Your task to perform on an android device: Show me the alarms in the clock app Image 0: 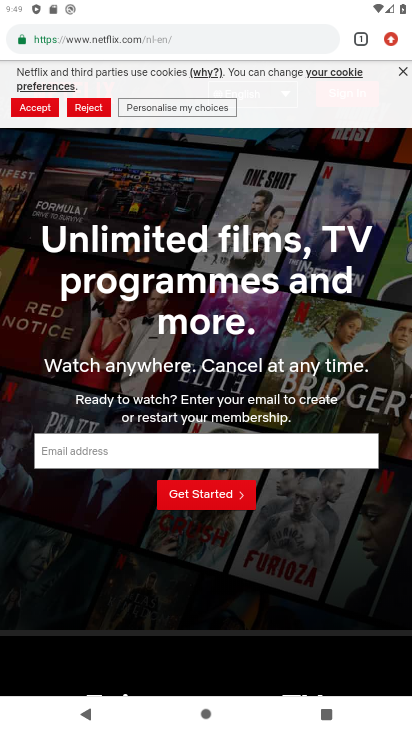
Step 0: press home button
Your task to perform on an android device: Show me the alarms in the clock app Image 1: 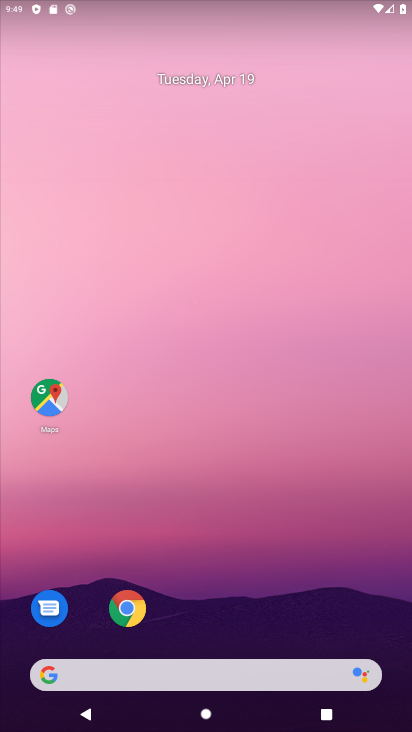
Step 1: click (322, 151)
Your task to perform on an android device: Show me the alarms in the clock app Image 2: 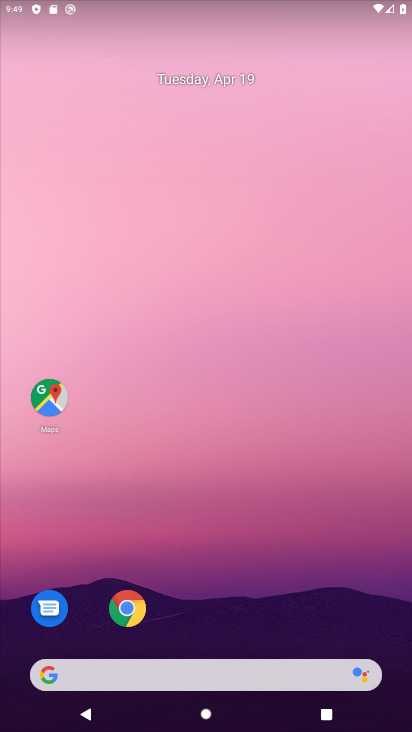
Step 2: drag from (357, 588) to (325, 101)
Your task to perform on an android device: Show me the alarms in the clock app Image 3: 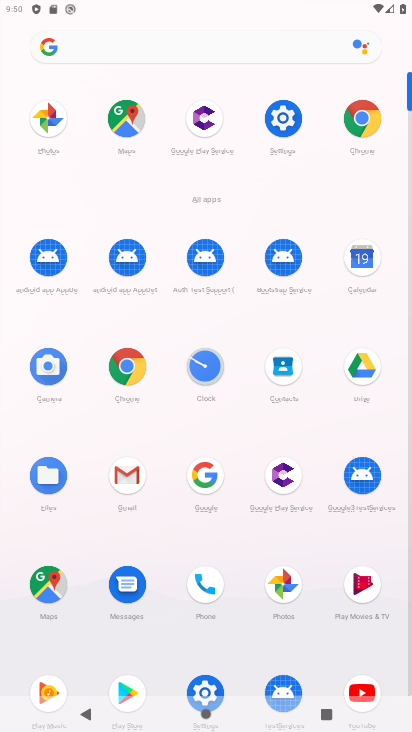
Step 3: click (202, 357)
Your task to perform on an android device: Show me the alarms in the clock app Image 4: 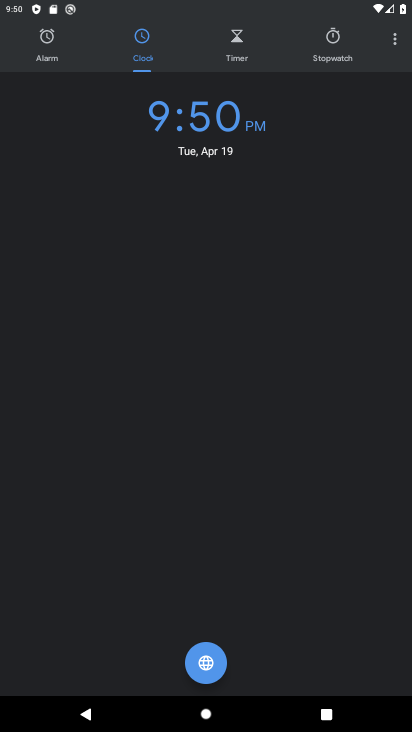
Step 4: click (392, 39)
Your task to perform on an android device: Show me the alarms in the clock app Image 5: 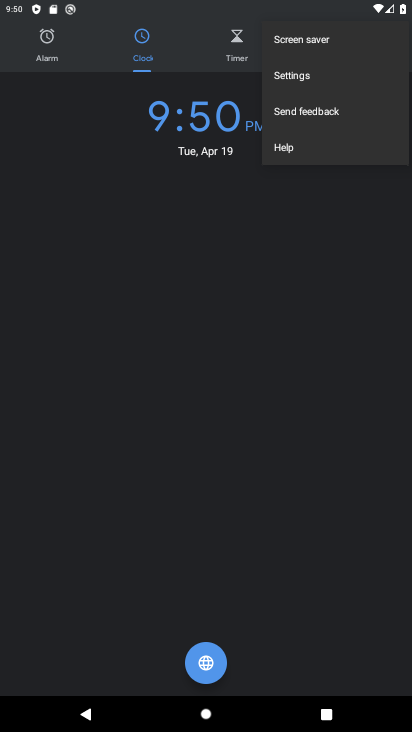
Step 5: click (281, 74)
Your task to perform on an android device: Show me the alarms in the clock app Image 6: 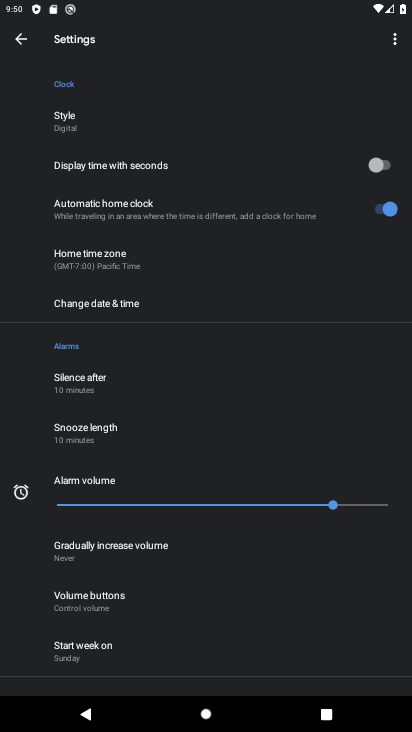
Step 6: press back button
Your task to perform on an android device: Show me the alarms in the clock app Image 7: 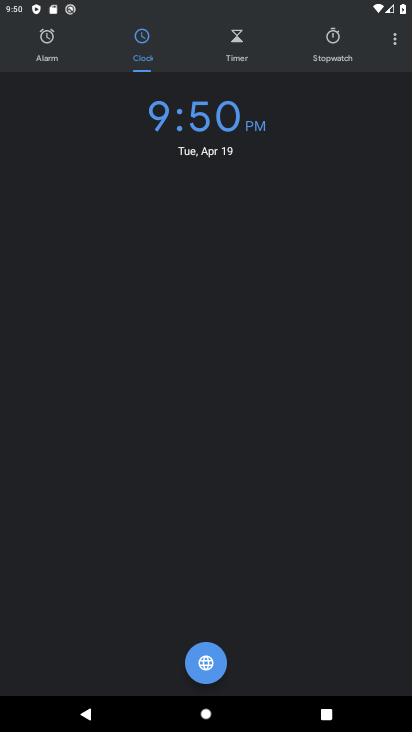
Step 7: click (47, 46)
Your task to perform on an android device: Show me the alarms in the clock app Image 8: 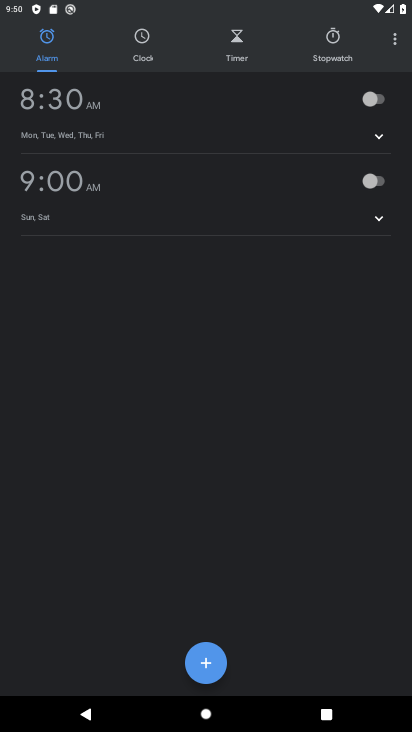
Step 8: task complete